Your task to perform on an android device: Open the stopwatch Image 0: 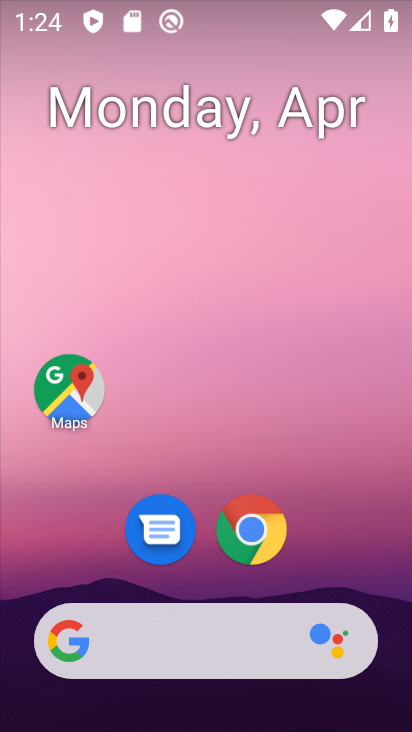
Step 0: drag from (284, 550) to (292, 314)
Your task to perform on an android device: Open the stopwatch Image 1: 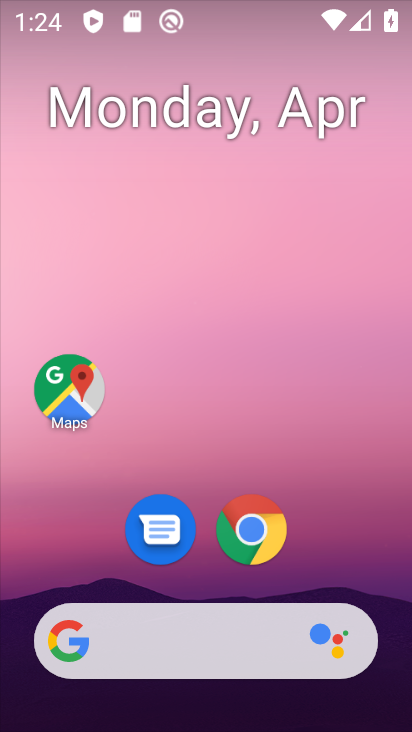
Step 1: drag from (301, 545) to (321, 285)
Your task to perform on an android device: Open the stopwatch Image 2: 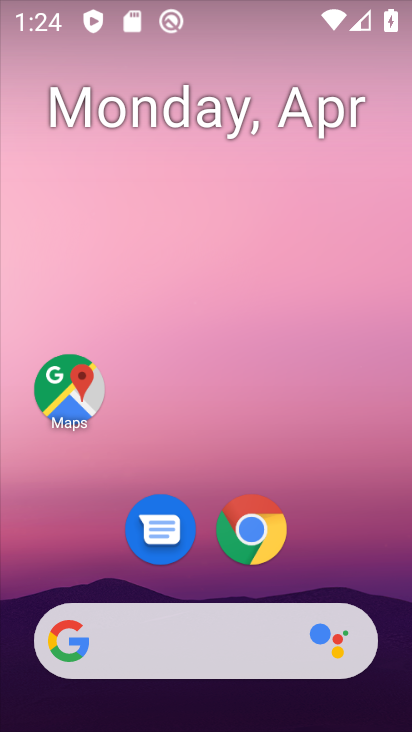
Step 2: drag from (314, 565) to (317, 196)
Your task to perform on an android device: Open the stopwatch Image 3: 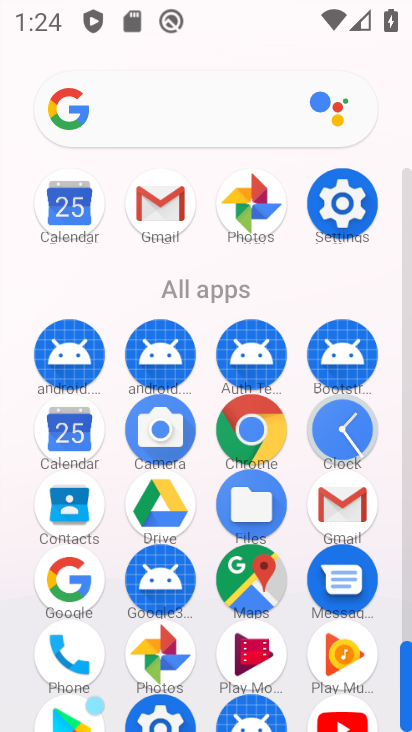
Step 3: click (344, 430)
Your task to perform on an android device: Open the stopwatch Image 4: 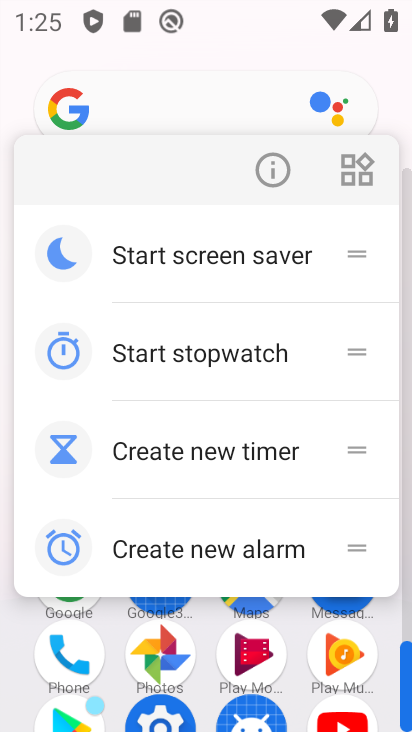
Step 4: press back button
Your task to perform on an android device: Open the stopwatch Image 5: 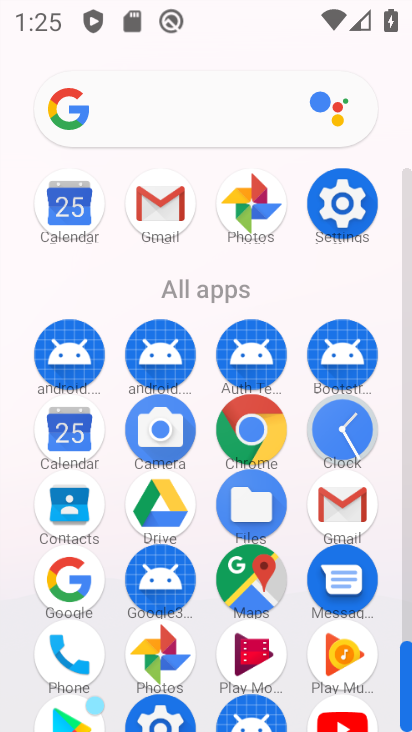
Step 5: click (347, 429)
Your task to perform on an android device: Open the stopwatch Image 6: 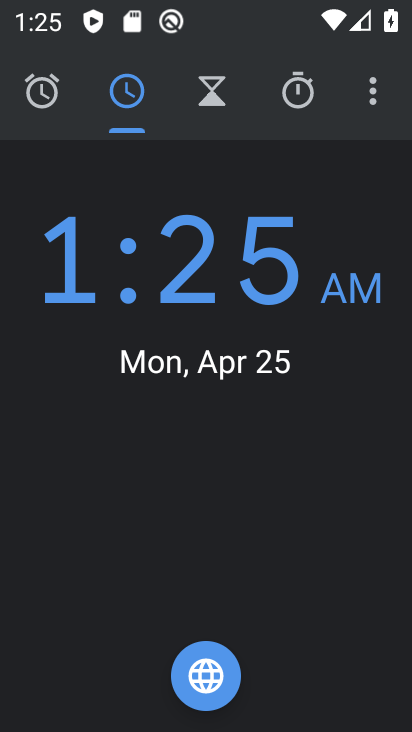
Step 6: click (292, 73)
Your task to perform on an android device: Open the stopwatch Image 7: 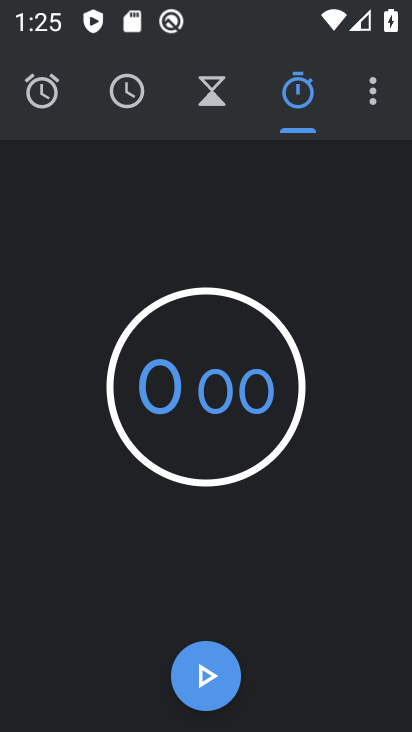
Step 7: click (205, 667)
Your task to perform on an android device: Open the stopwatch Image 8: 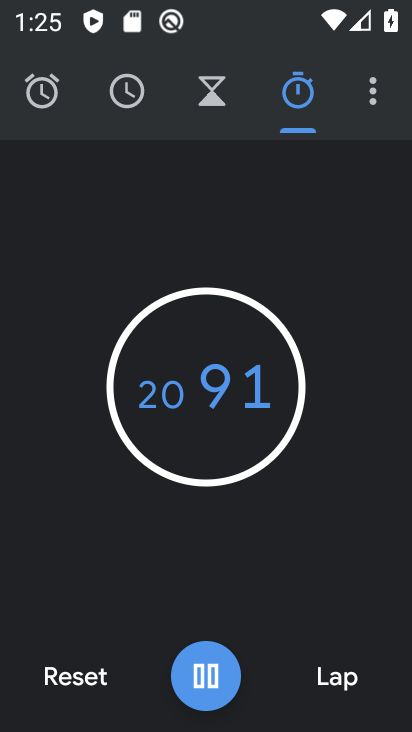
Step 8: click (205, 667)
Your task to perform on an android device: Open the stopwatch Image 9: 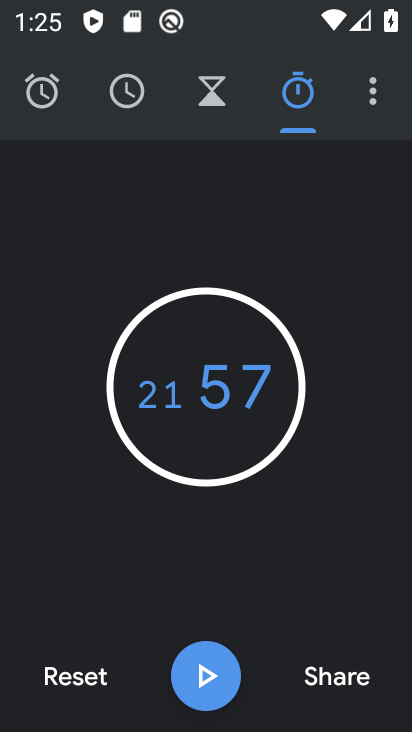
Step 9: task complete